Your task to perform on an android device: Show me popular videos on Youtube Image 0: 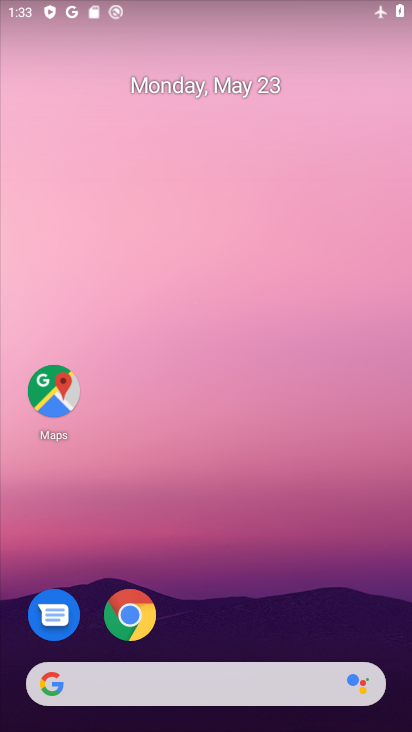
Step 0: drag from (239, 660) to (152, 75)
Your task to perform on an android device: Show me popular videos on Youtube Image 1: 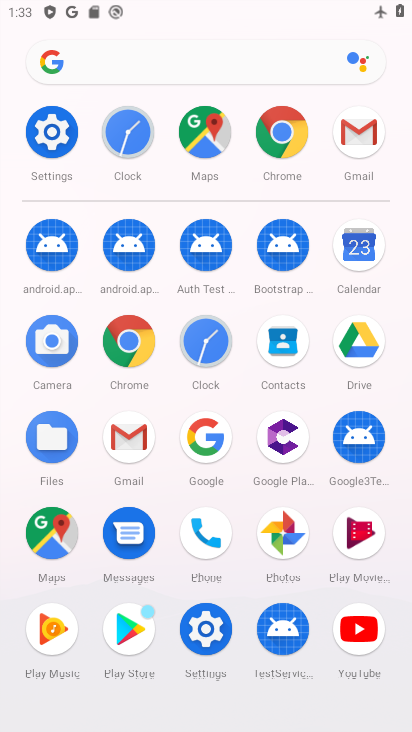
Step 1: click (356, 633)
Your task to perform on an android device: Show me popular videos on Youtube Image 2: 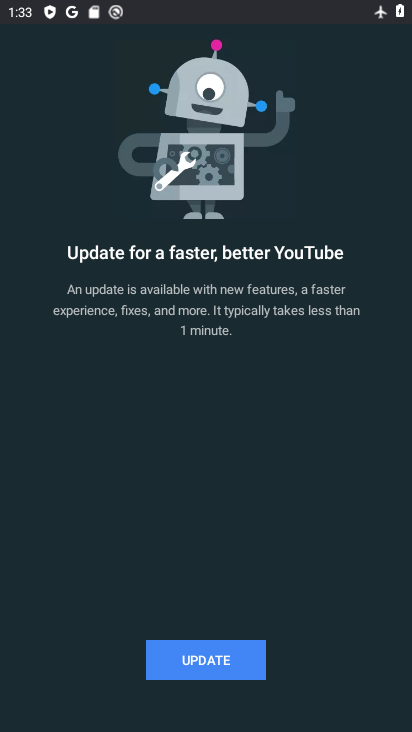
Step 2: click (190, 662)
Your task to perform on an android device: Show me popular videos on Youtube Image 3: 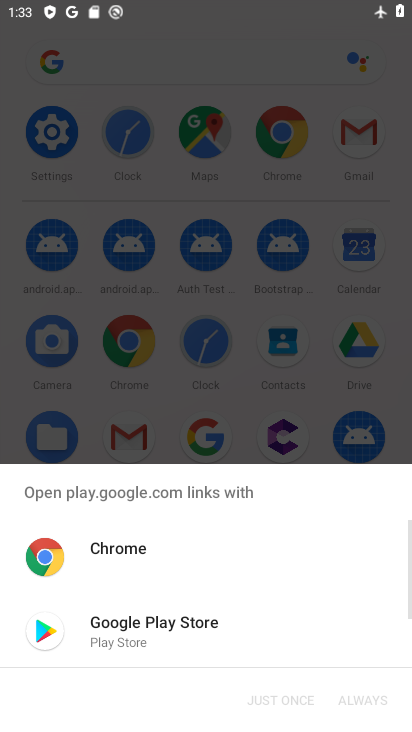
Step 3: click (188, 644)
Your task to perform on an android device: Show me popular videos on Youtube Image 4: 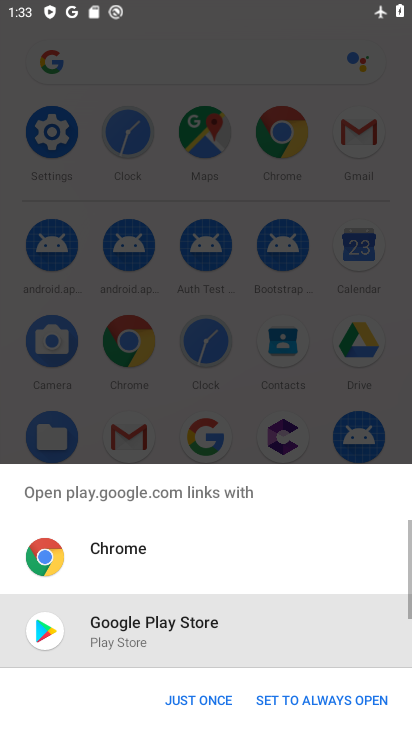
Step 4: click (205, 698)
Your task to perform on an android device: Show me popular videos on Youtube Image 5: 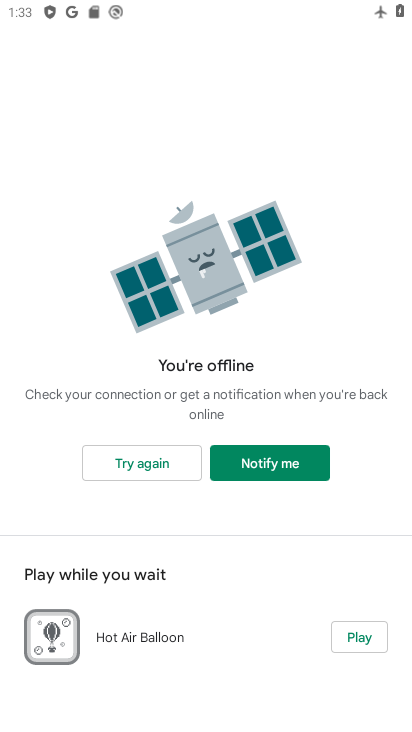
Step 5: task complete